Your task to perform on an android device: Go to Google Image 0: 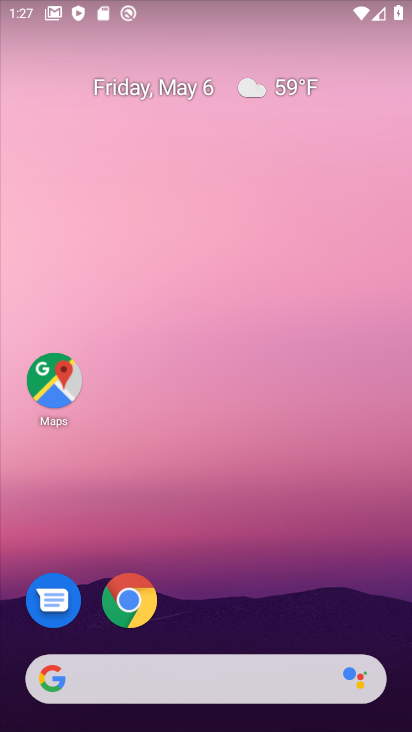
Step 0: drag from (215, 533) to (188, 58)
Your task to perform on an android device: Go to Google Image 1: 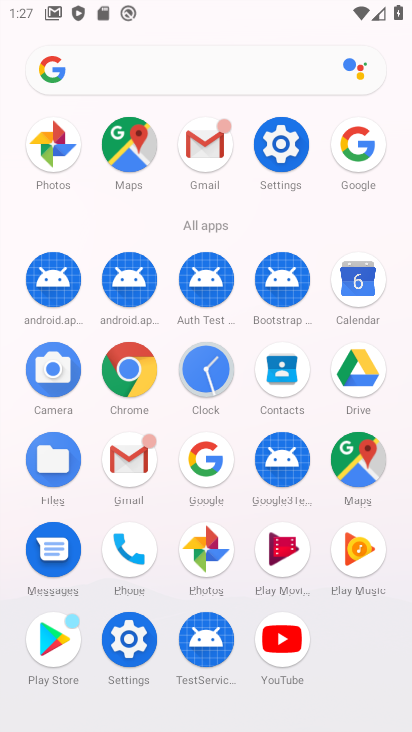
Step 1: click (207, 459)
Your task to perform on an android device: Go to Google Image 2: 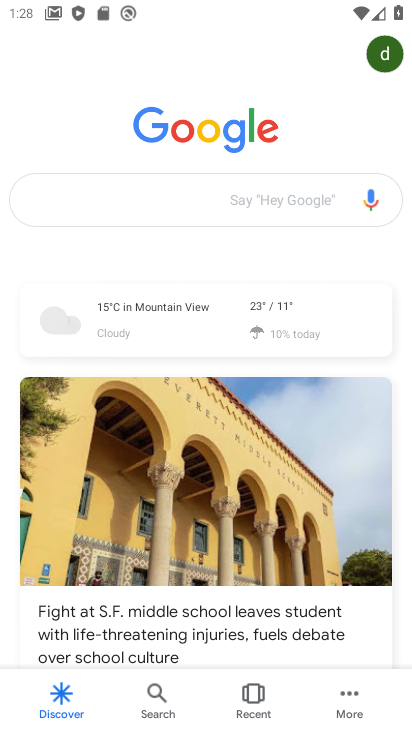
Step 2: task complete